Your task to perform on an android device: Open Google Image 0: 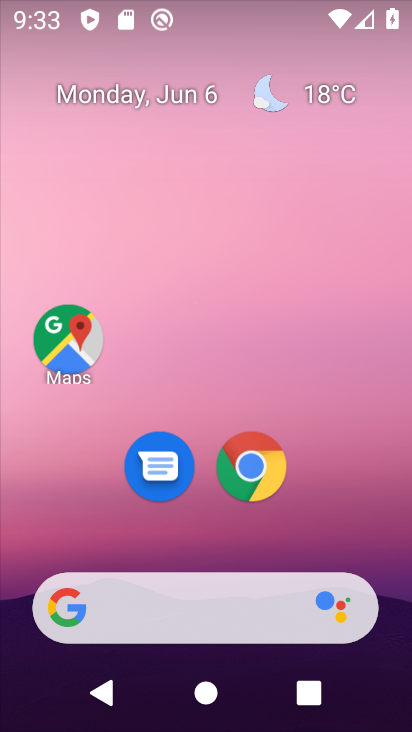
Step 0: drag from (204, 574) to (204, 6)
Your task to perform on an android device: Open Google Image 1: 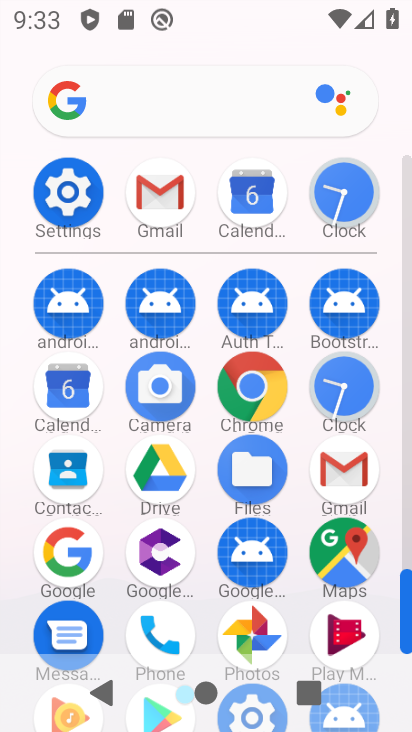
Step 1: click (70, 572)
Your task to perform on an android device: Open Google Image 2: 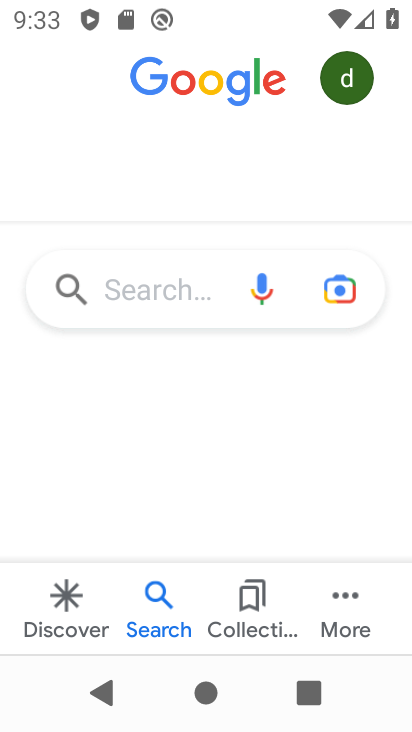
Step 2: task complete